Your task to perform on an android device: What is the news today? Image 0: 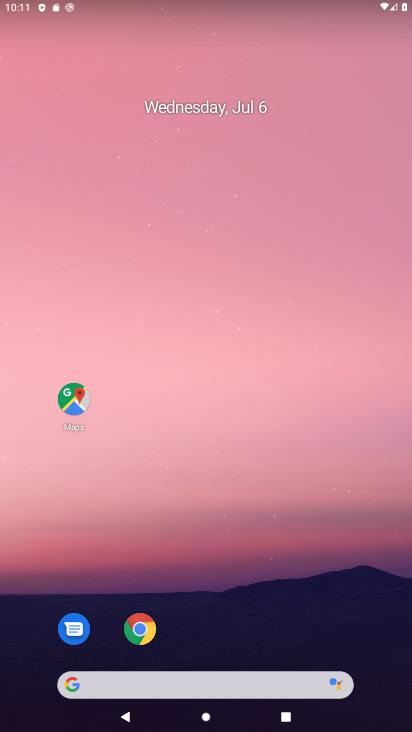
Step 0: click (265, 684)
Your task to perform on an android device: What is the news today? Image 1: 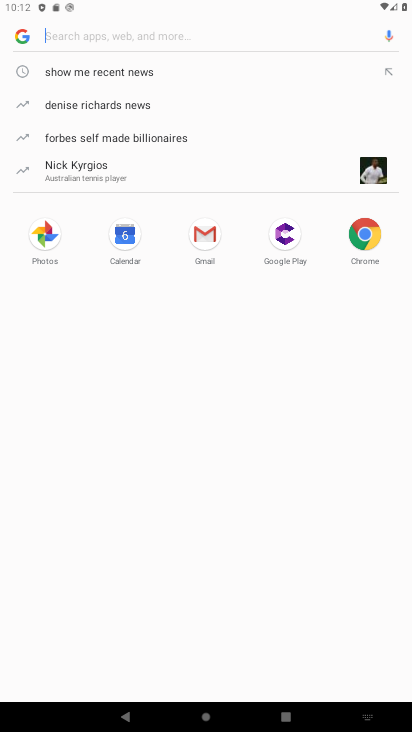
Step 1: click (383, 498)
Your task to perform on an android device: What is the news today? Image 2: 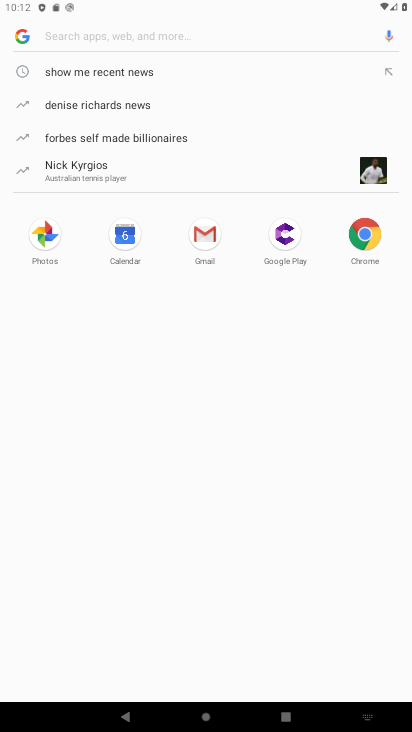
Step 2: click (265, 21)
Your task to perform on an android device: What is the news today? Image 3: 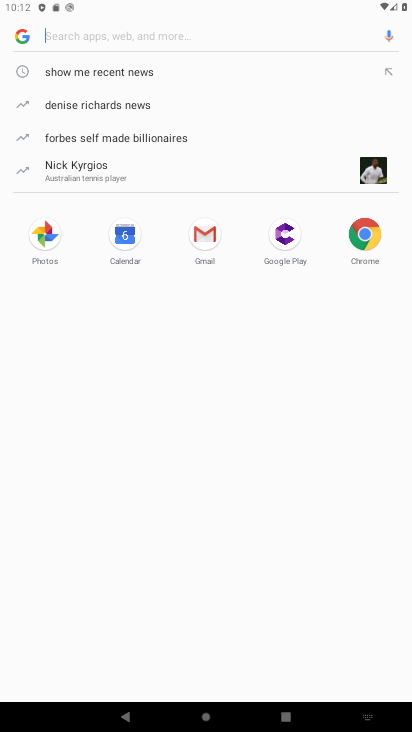
Step 3: type " news"
Your task to perform on an android device: What is the news today? Image 4: 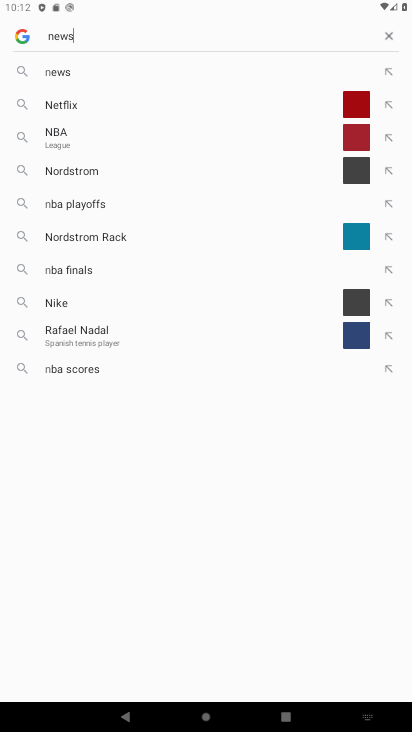
Step 4: type ""
Your task to perform on an android device: What is the news today? Image 5: 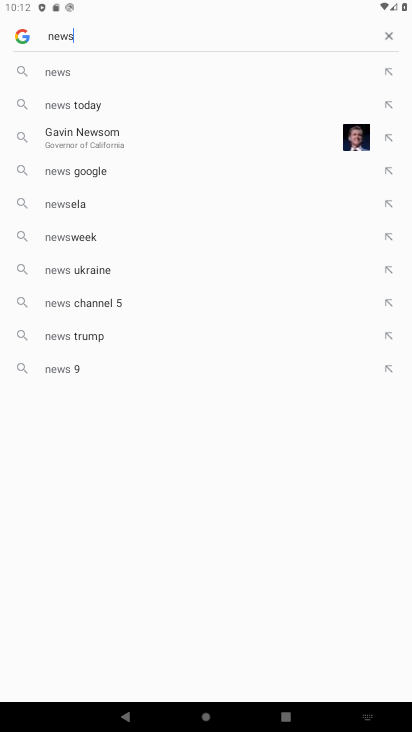
Step 5: click (69, 62)
Your task to perform on an android device: What is the news today? Image 6: 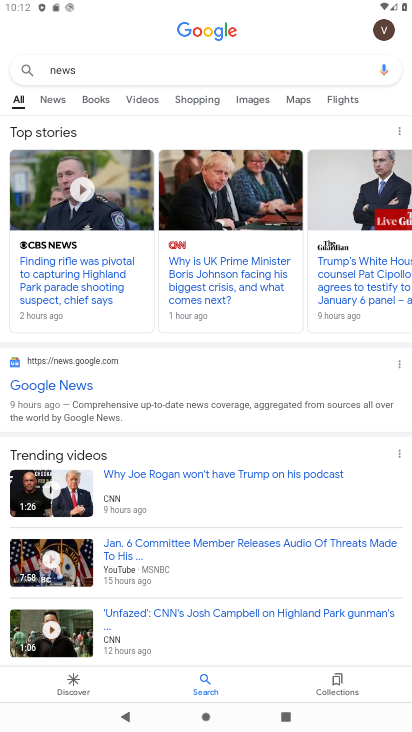
Step 6: task complete